Your task to perform on an android device: turn off notifications in google photos Image 0: 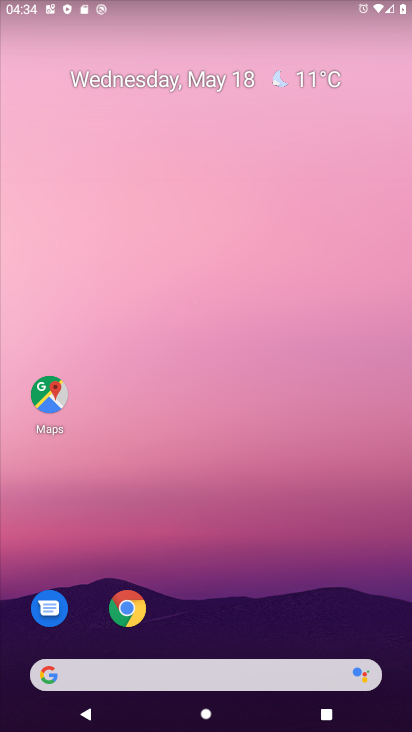
Step 0: drag from (162, 642) to (200, 142)
Your task to perform on an android device: turn off notifications in google photos Image 1: 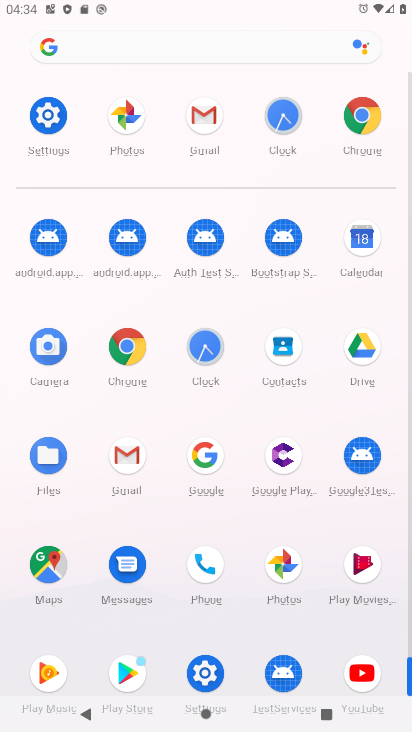
Step 1: click (117, 107)
Your task to perform on an android device: turn off notifications in google photos Image 2: 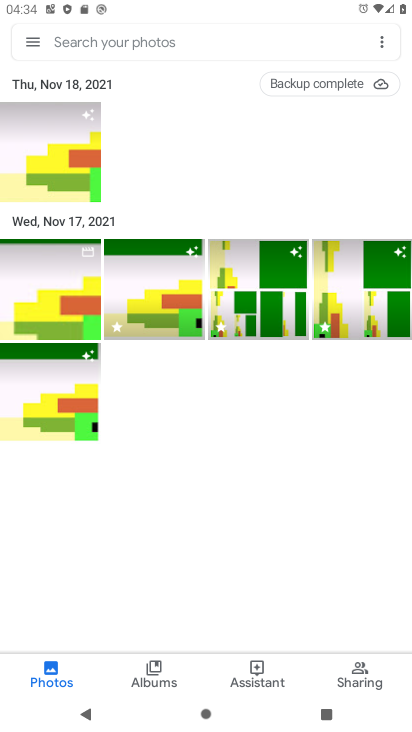
Step 2: click (30, 30)
Your task to perform on an android device: turn off notifications in google photos Image 3: 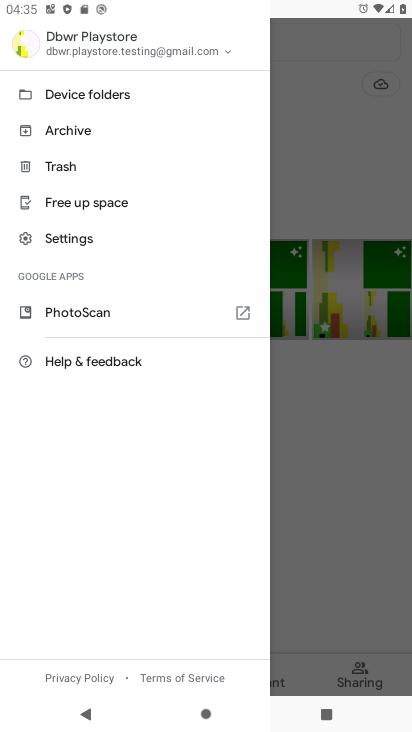
Step 3: click (66, 235)
Your task to perform on an android device: turn off notifications in google photos Image 4: 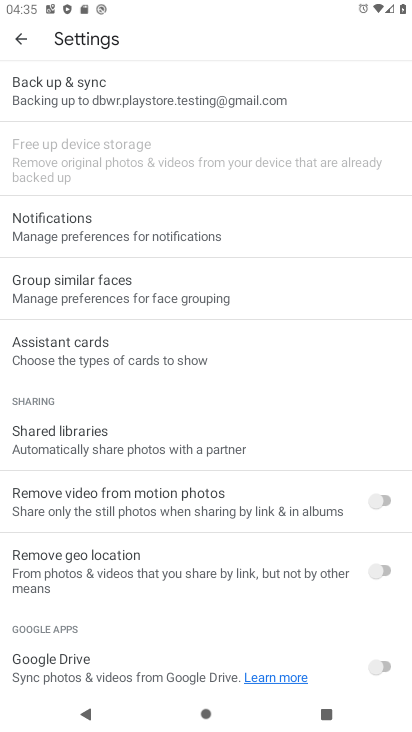
Step 4: click (135, 207)
Your task to perform on an android device: turn off notifications in google photos Image 5: 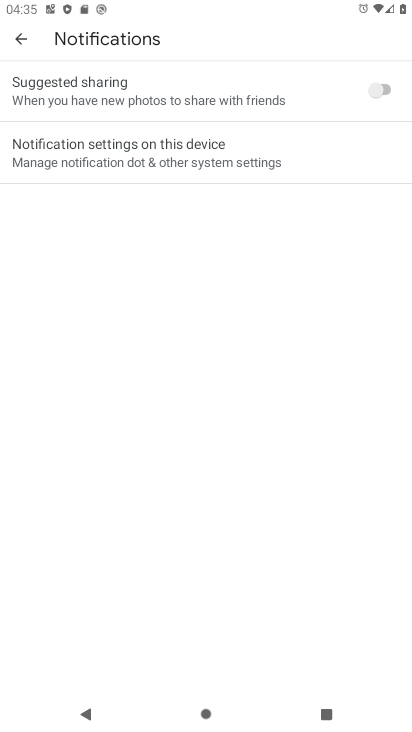
Step 5: click (99, 162)
Your task to perform on an android device: turn off notifications in google photos Image 6: 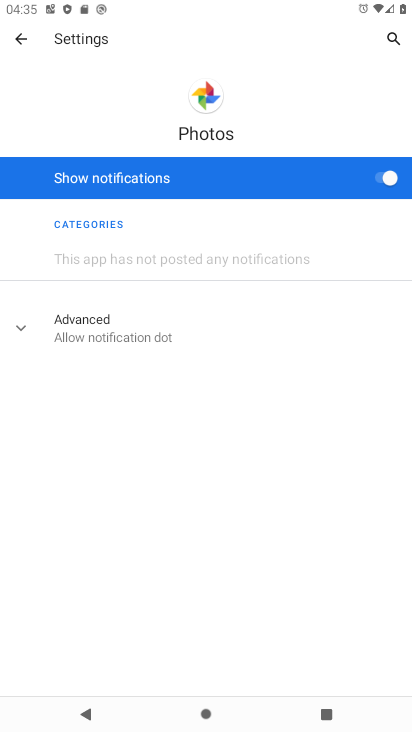
Step 6: click (385, 189)
Your task to perform on an android device: turn off notifications in google photos Image 7: 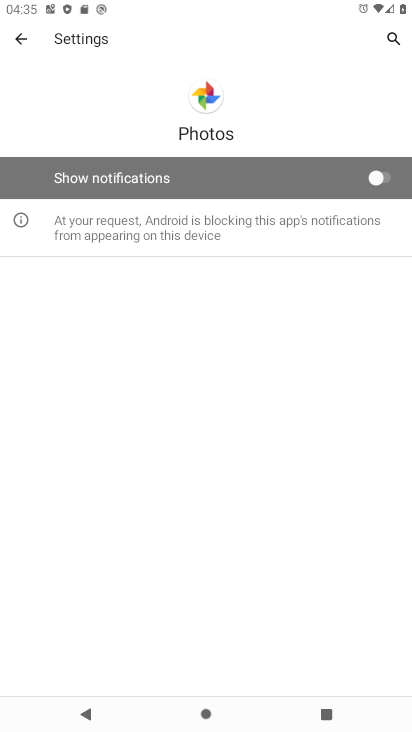
Step 7: task complete